Your task to perform on an android device: Check the weather Image 0: 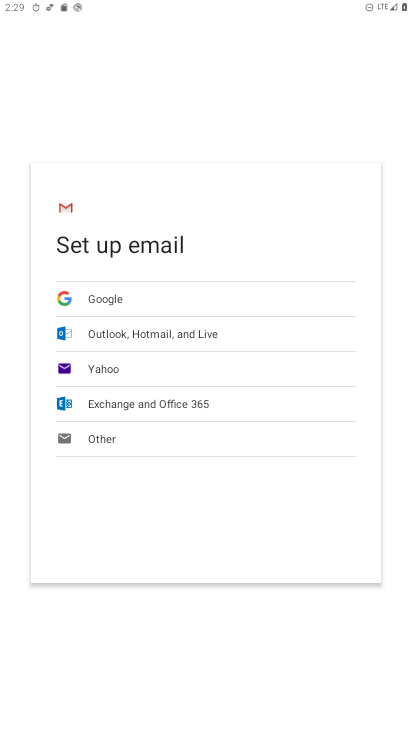
Step 0: press home button
Your task to perform on an android device: Check the weather Image 1: 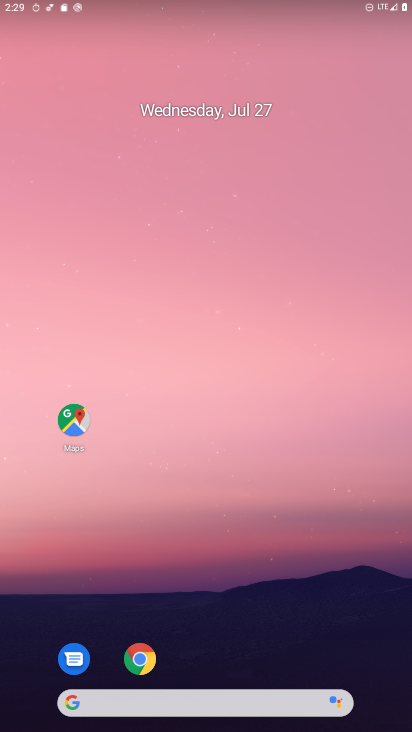
Step 1: drag from (297, 577) to (251, 85)
Your task to perform on an android device: Check the weather Image 2: 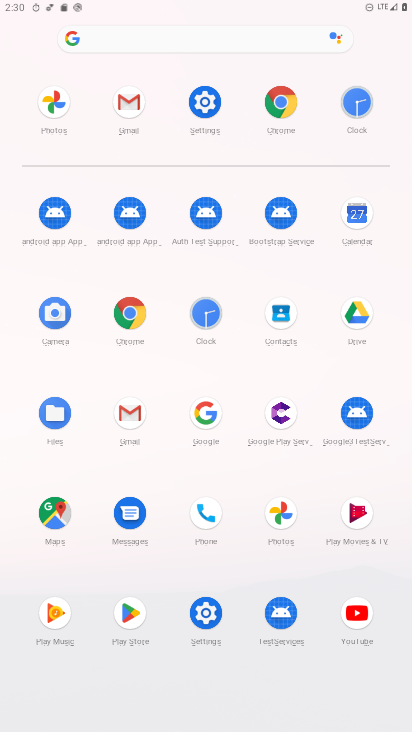
Step 2: click (274, 101)
Your task to perform on an android device: Check the weather Image 3: 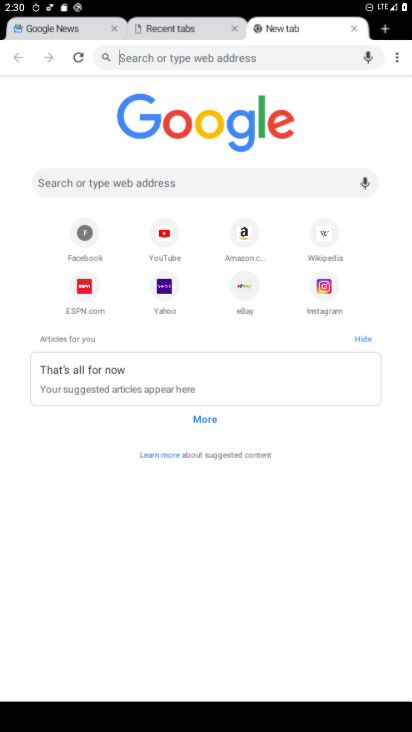
Step 3: click (264, 68)
Your task to perform on an android device: Check the weather Image 4: 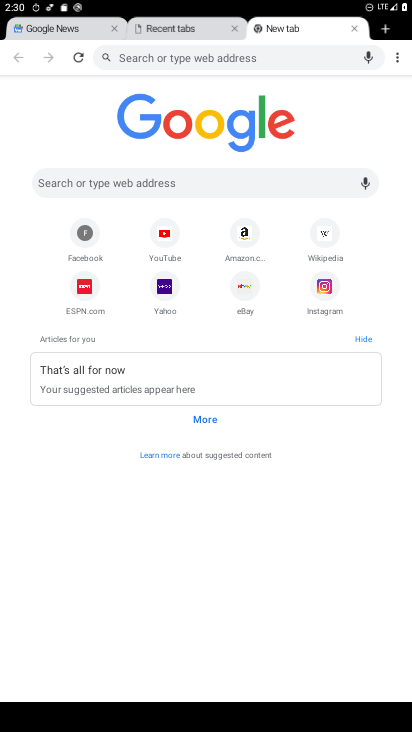
Step 4: type "weather"
Your task to perform on an android device: Check the weather Image 5: 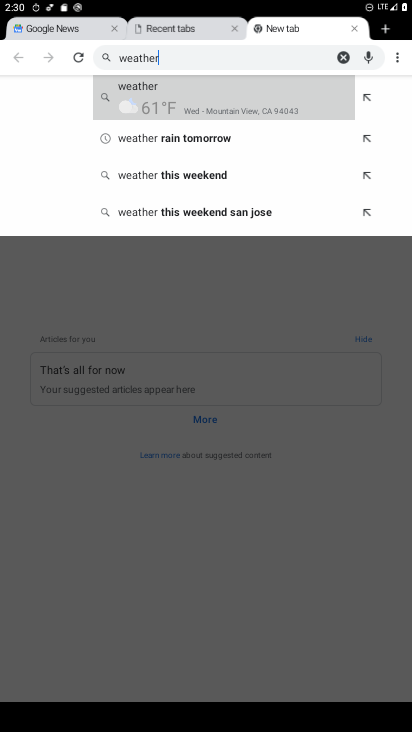
Step 5: click (186, 99)
Your task to perform on an android device: Check the weather Image 6: 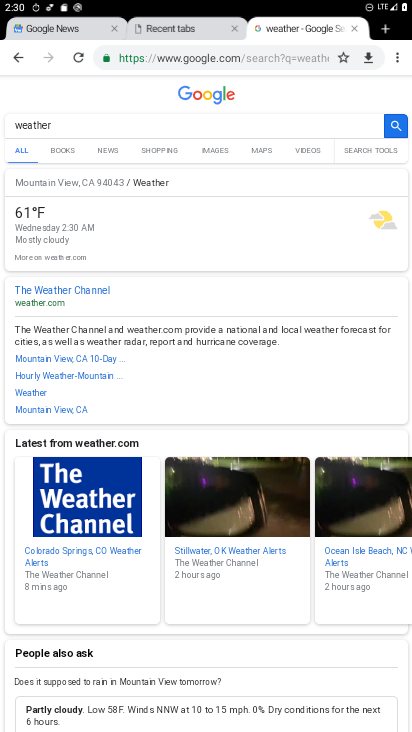
Step 6: task complete